Your task to perform on an android device: turn off improve location accuracy Image 0: 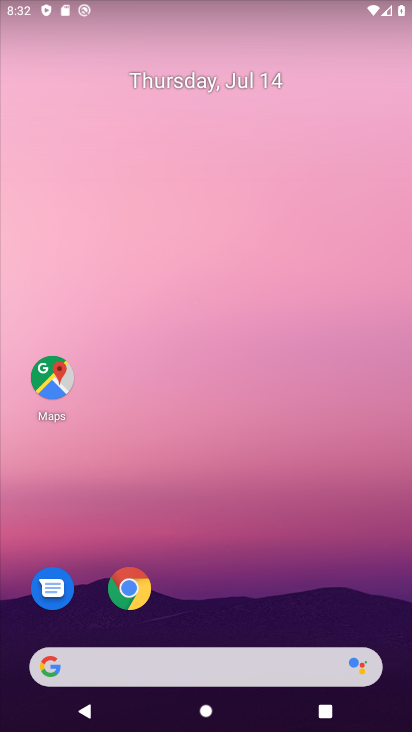
Step 0: drag from (237, 616) to (274, 82)
Your task to perform on an android device: turn off improve location accuracy Image 1: 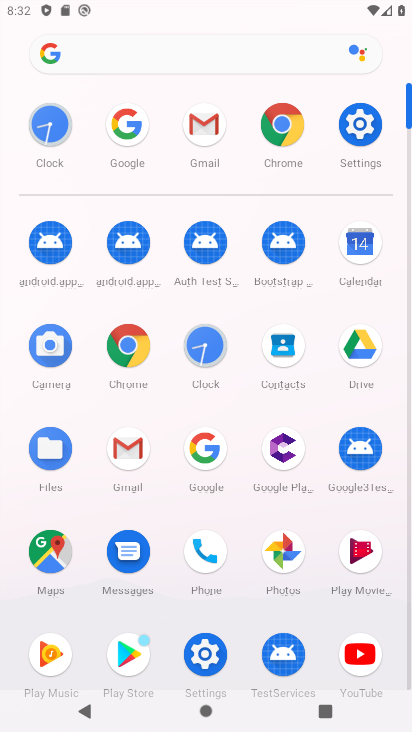
Step 1: click (365, 121)
Your task to perform on an android device: turn off improve location accuracy Image 2: 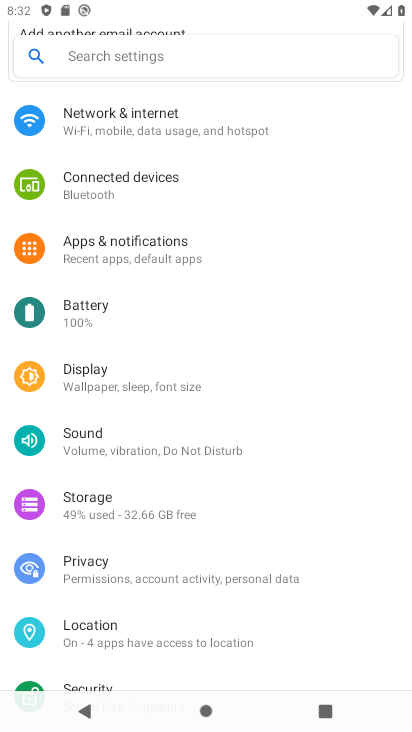
Step 2: click (108, 625)
Your task to perform on an android device: turn off improve location accuracy Image 3: 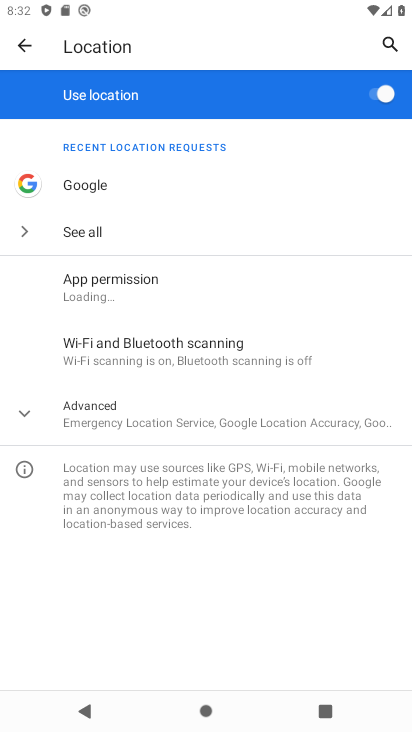
Step 3: click (82, 417)
Your task to perform on an android device: turn off improve location accuracy Image 4: 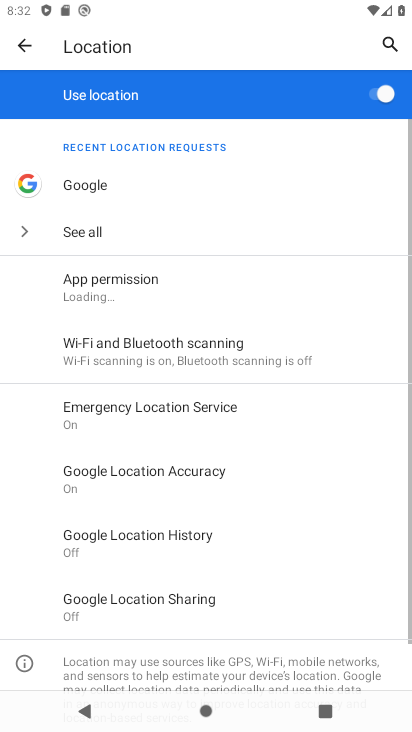
Step 4: click (150, 478)
Your task to perform on an android device: turn off improve location accuracy Image 5: 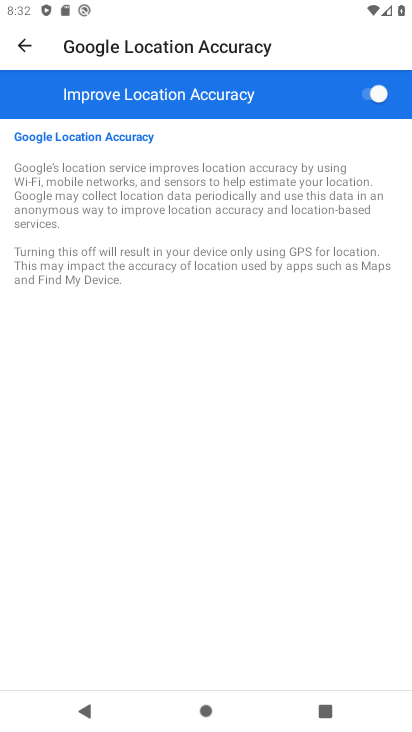
Step 5: click (388, 101)
Your task to perform on an android device: turn off improve location accuracy Image 6: 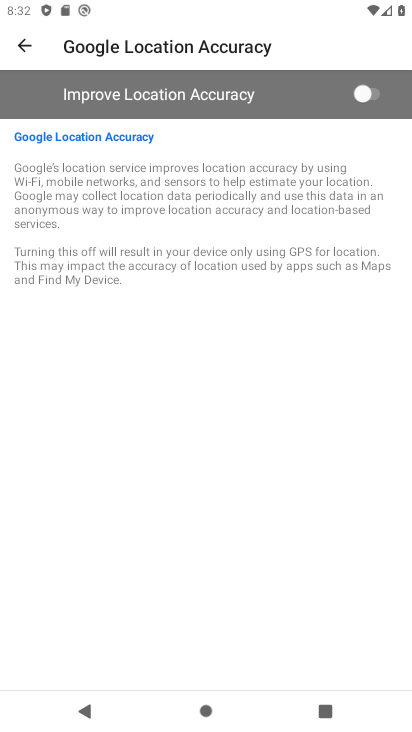
Step 6: task complete